Your task to perform on an android device: find snoozed emails in the gmail app Image 0: 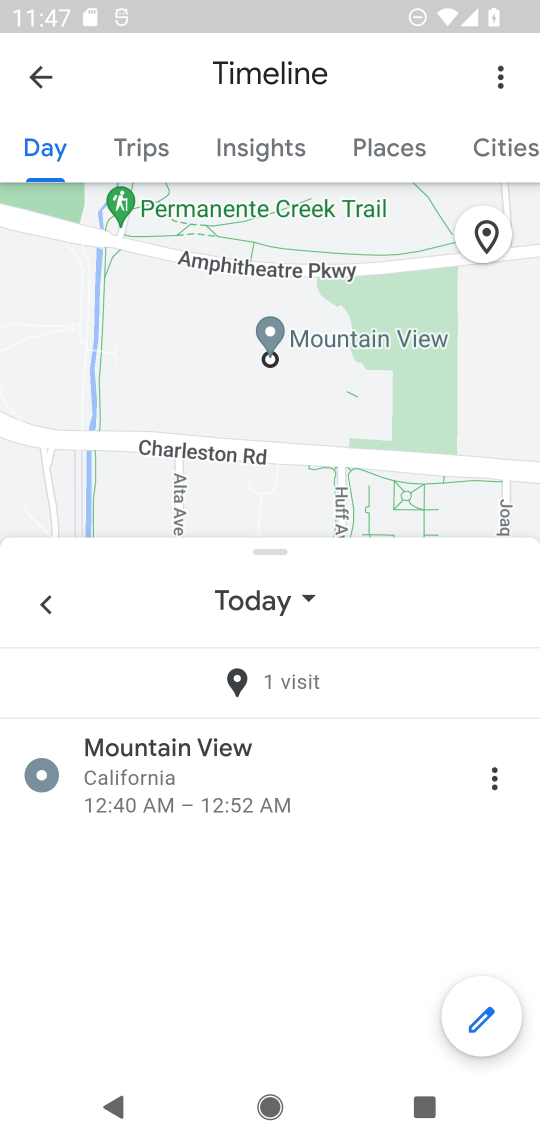
Step 0: press home button
Your task to perform on an android device: find snoozed emails in the gmail app Image 1: 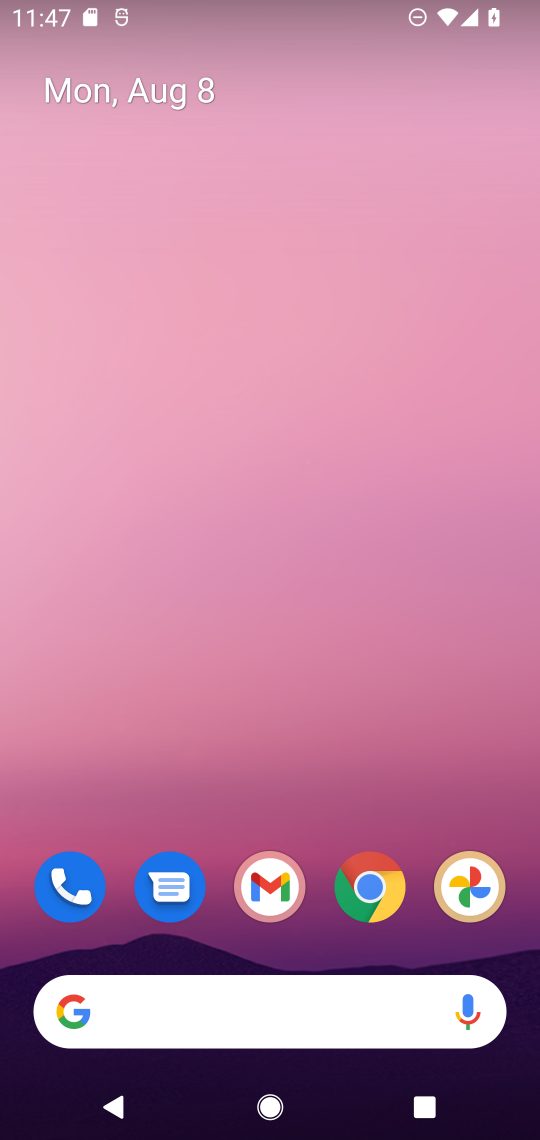
Step 1: click (271, 871)
Your task to perform on an android device: find snoozed emails in the gmail app Image 2: 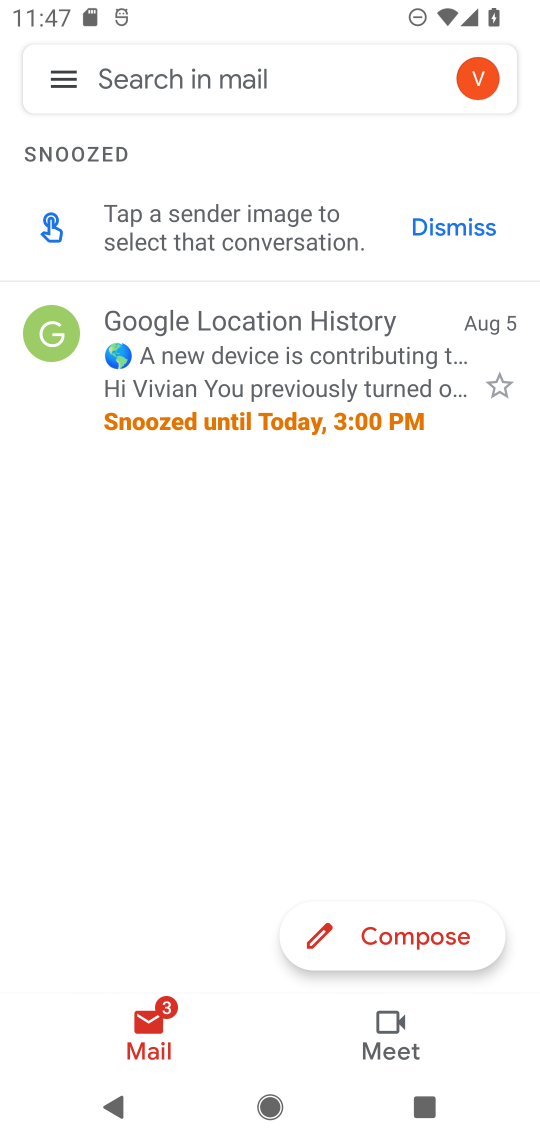
Step 2: task complete